Your task to perform on an android device: Go to settings Image 0: 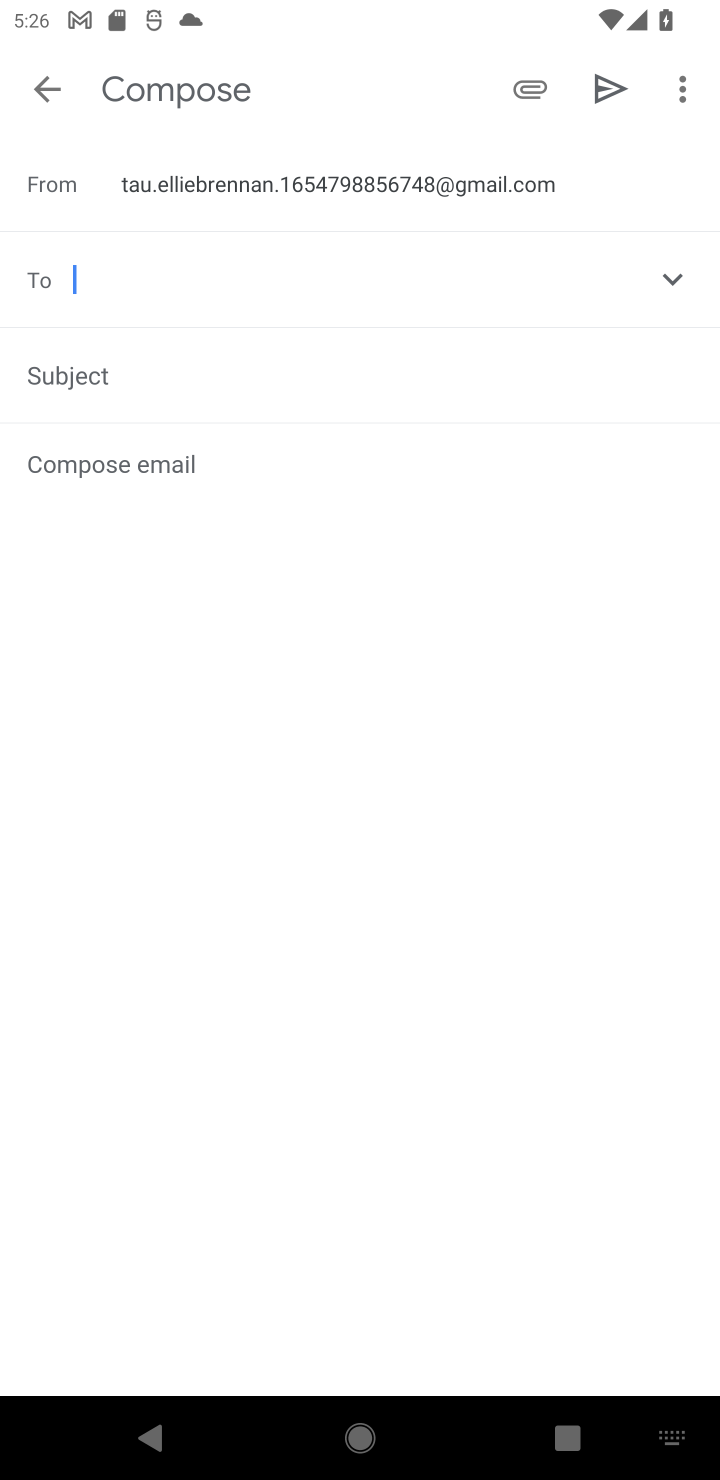
Step 0: press home button
Your task to perform on an android device: Go to settings Image 1: 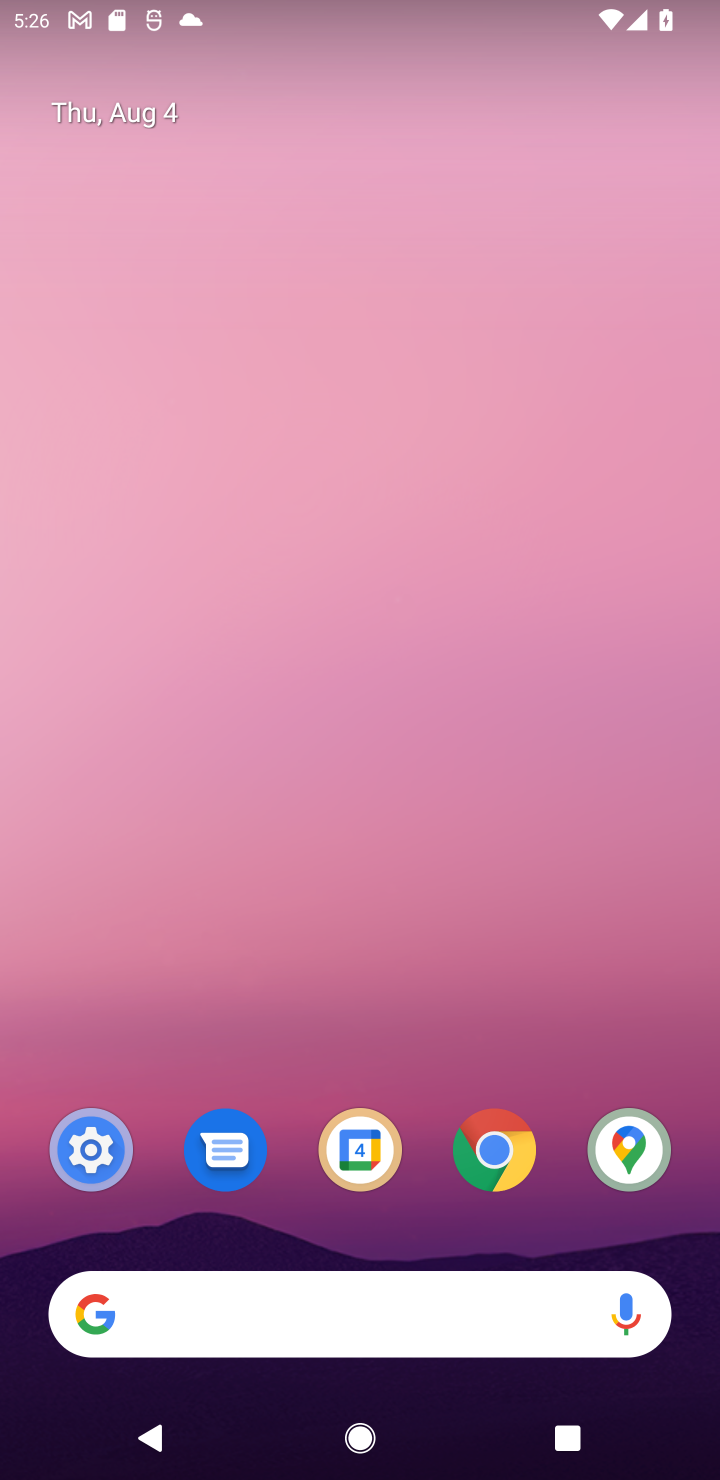
Step 1: drag from (267, 1183) to (283, 11)
Your task to perform on an android device: Go to settings Image 2: 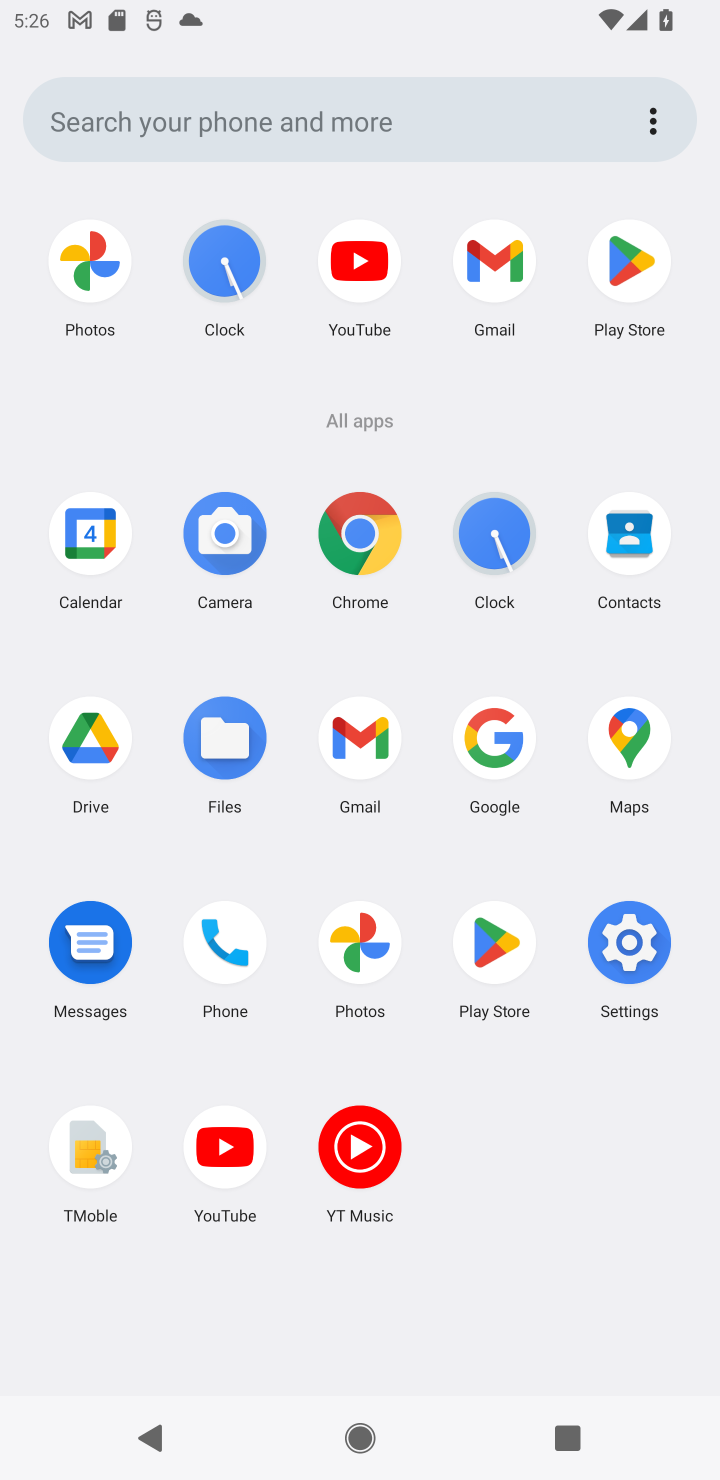
Step 2: click (629, 977)
Your task to perform on an android device: Go to settings Image 3: 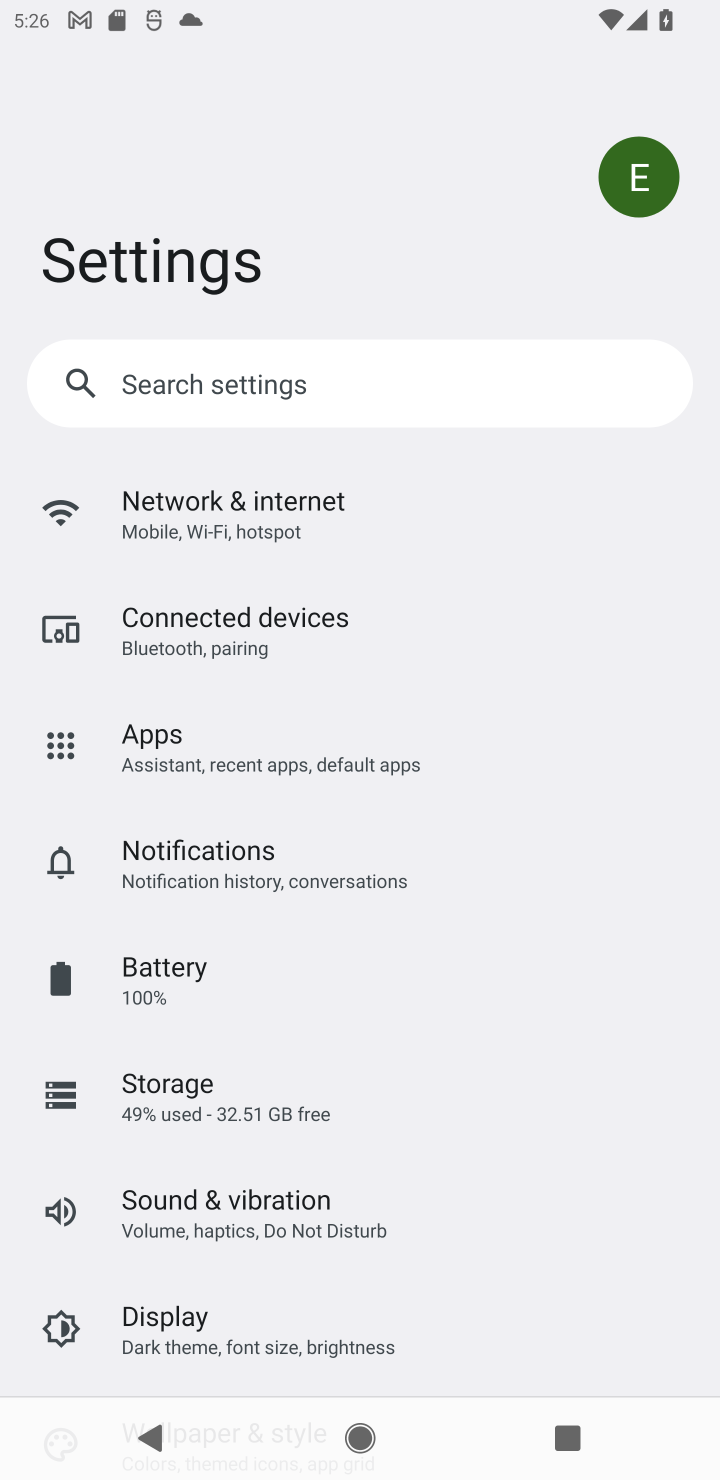
Step 3: task complete